Your task to perform on an android device: change the upload size in google photos Image 0: 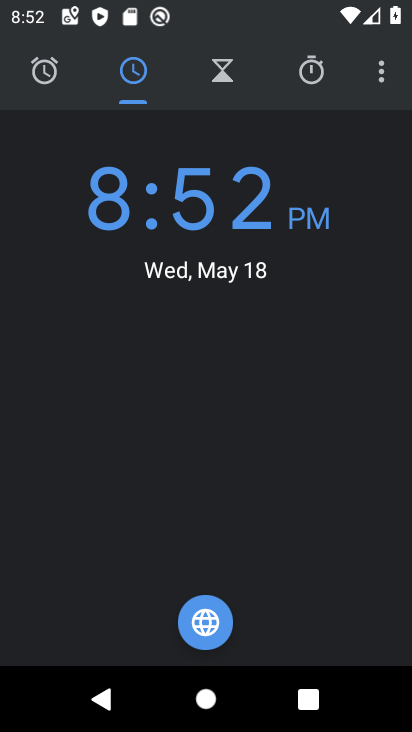
Step 0: press home button
Your task to perform on an android device: change the upload size in google photos Image 1: 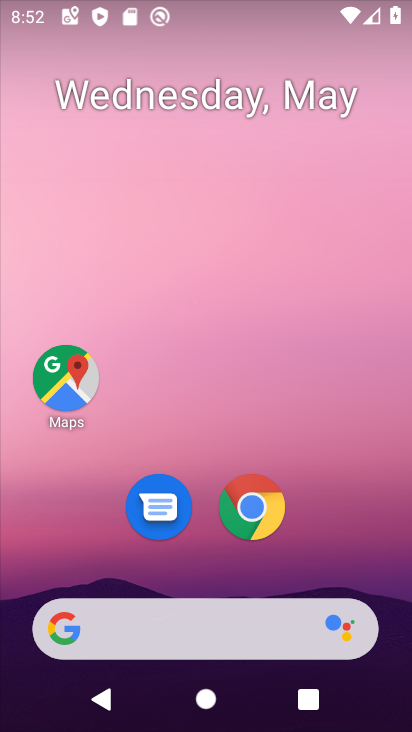
Step 1: drag from (343, 575) to (257, 150)
Your task to perform on an android device: change the upload size in google photos Image 2: 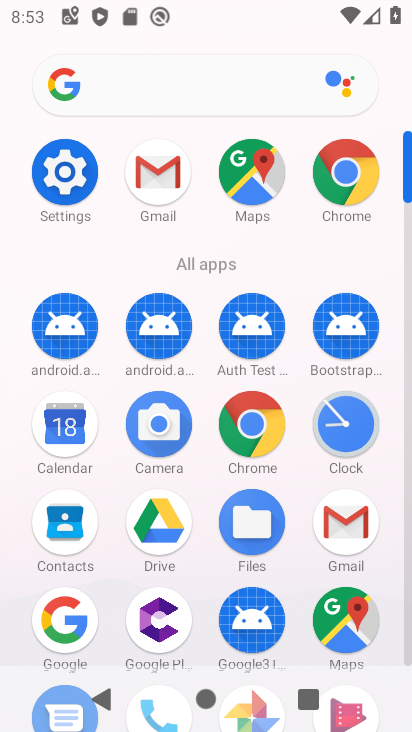
Step 2: click (410, 657)
Your task to perform on an android device: change the upload size in google photos Image 3: 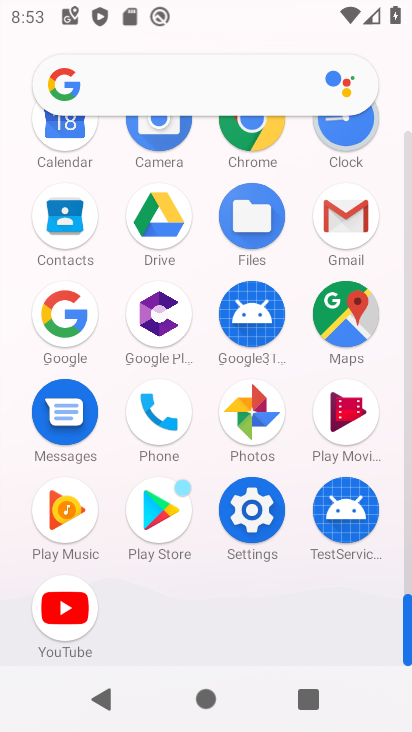
Step 3: click (260, 421)
Your task to perform on an android device: change the upload size in google photos Image 4: 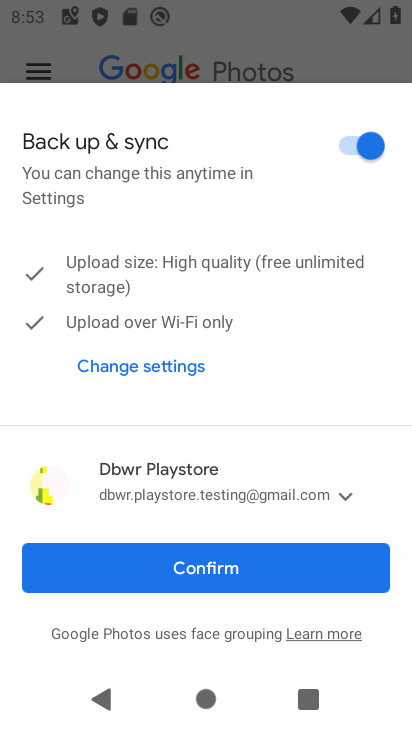
Step 4: click (255, 587)
Your task to perform on an android device: change the upload size in google photos Image 5: 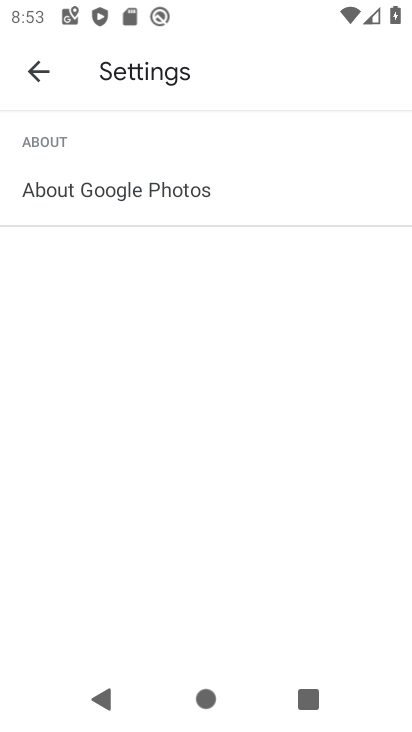
Step 5: click (42, 82)
Your task to perform on an android device: change the upload size in google photos Image 6: 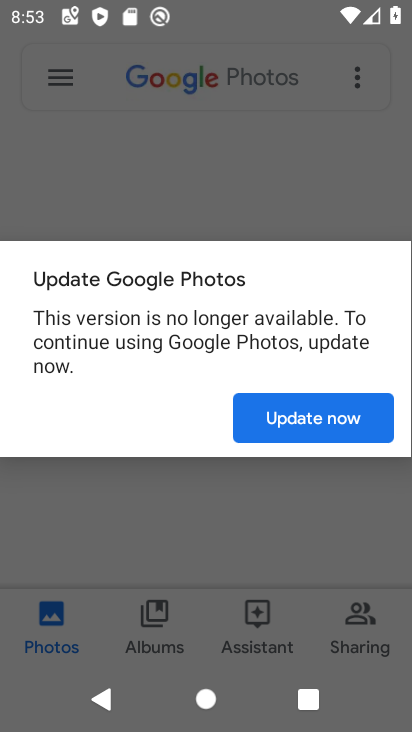
Step 6: click (307, 428)
Your task to perform on an android device: change the upload size in google photos Image 7: 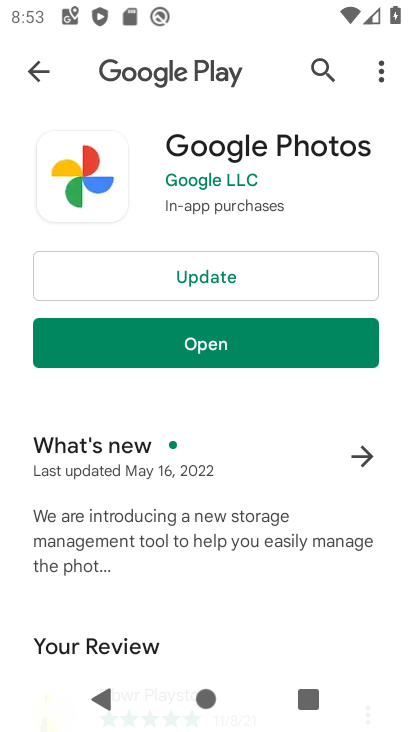
Step 7: click (171, 274)
Your task to perform on an android device: change the upload size in google photos Image 8: 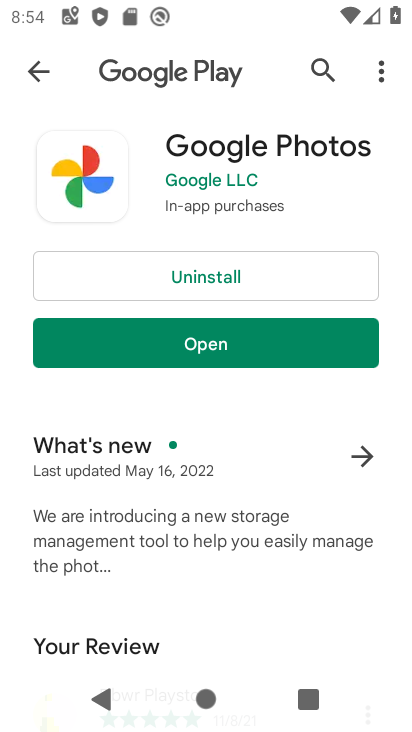
Step 8: click (233, 354)
Your task to perform on an android device: change the upload size in google photos Image 9: 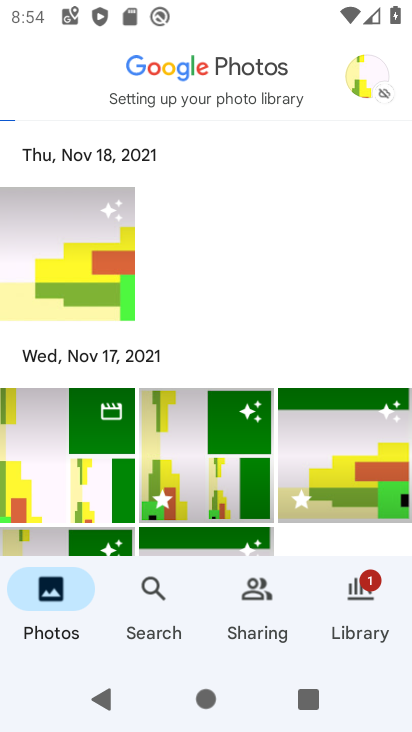
Step 9: click (374, 69)
Your task to perform on an android device: change the upload size in google photos Image 10: 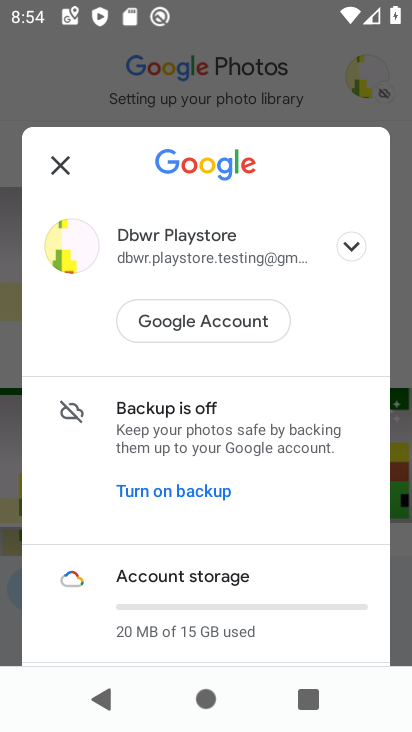
Step 10: drag from (270, 636) to (260, 294)
Your task to perform on an android device: change the upload size in google photos Image 11: 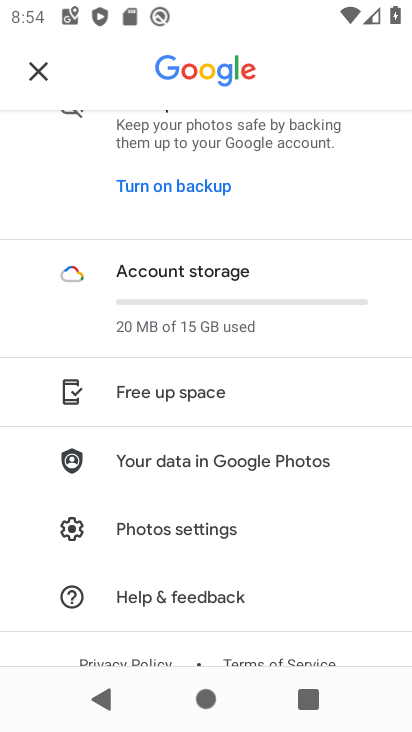
Step 11: click (299, 548)
Your task to perform on an android device: change the upload size in google photos Image 12: 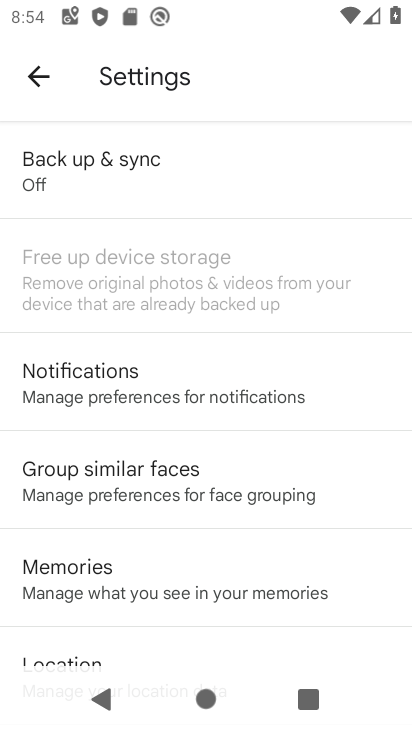
Step 12: click (195, 191)
Your task to perform on an android device: change the upload size in google photos Image 13: 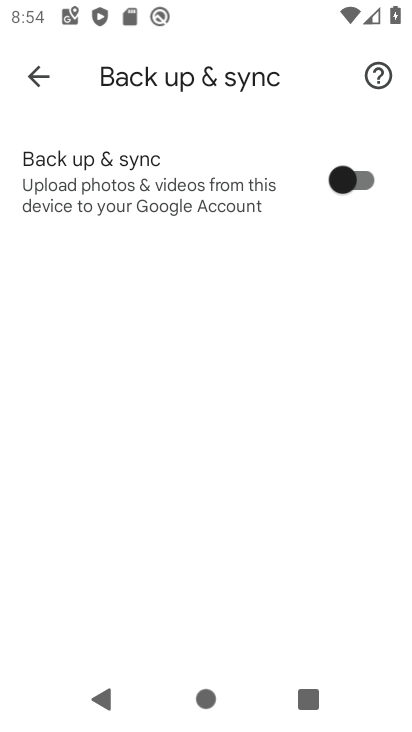
Step 13: click (353, 177)
Your task to perform on an android device: change the upload size in google photos Image 14: 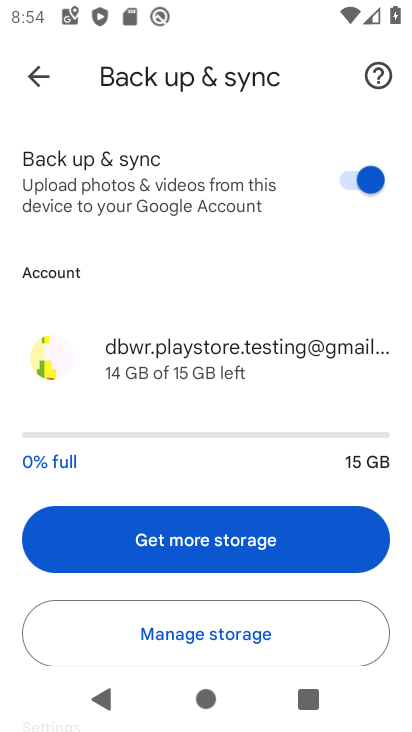
Step 14: drag from (326, 585) to (268, 240)
Your task to perform on an android device: change the upload size in google photos Image 15: 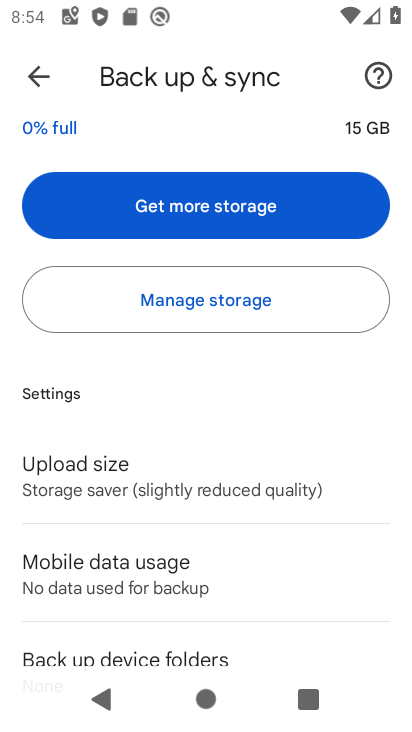
Step 15: click (319, 482)
Your task to perform on an android device: change the upload size in google photos Image 16: 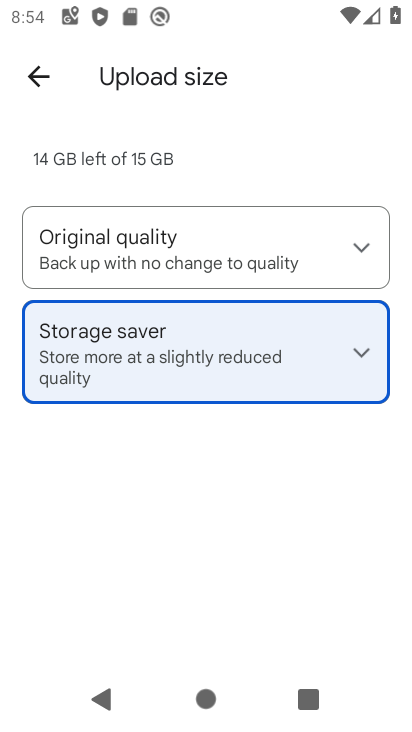
Step 16: click (251, 259)
Your task to perform on an android device: change the upload size in google photos Image 17: 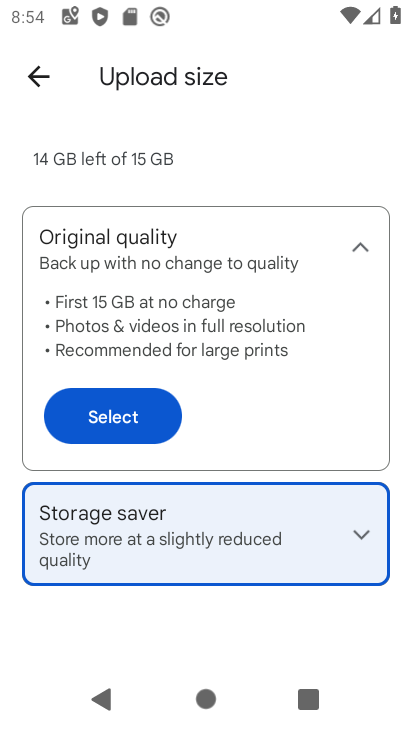
Step 17: click (153, 423)
Your task to perform on an android device: change the upload size in google photos Image 18: 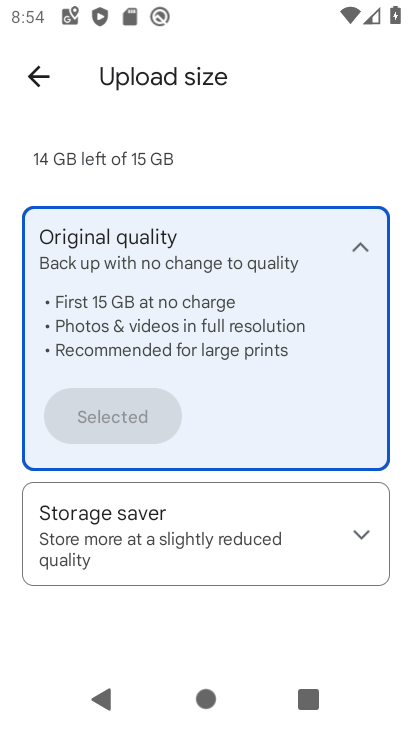
Step 18: task complete